Your task to perform on an android device: Clear the shopping cart on bestbuy.com. Image 0: 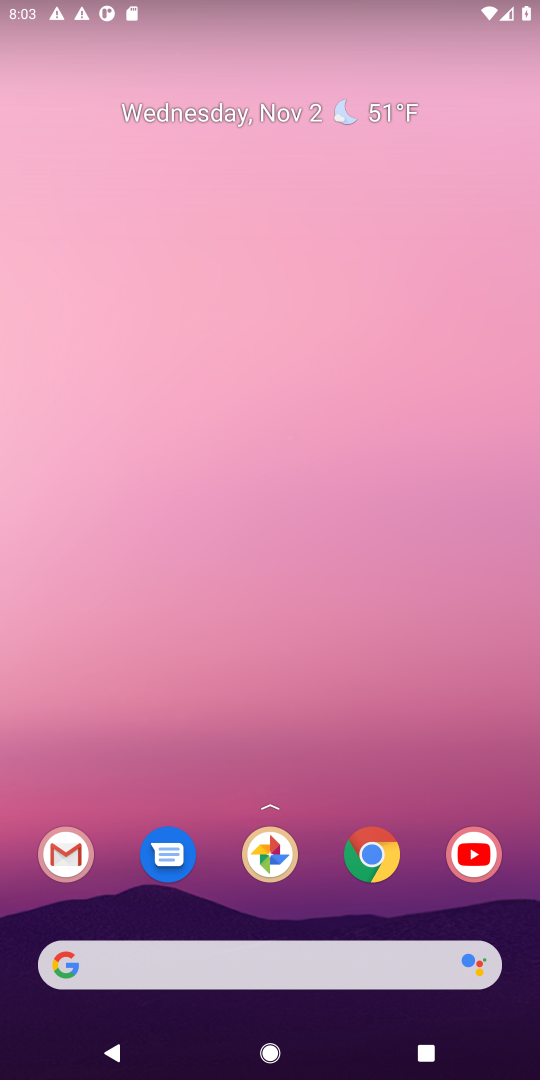
Step 0: click (379, 857)
Your task to perform on an android device: Clear the shopping cart on bestbuy.com. Image 1: 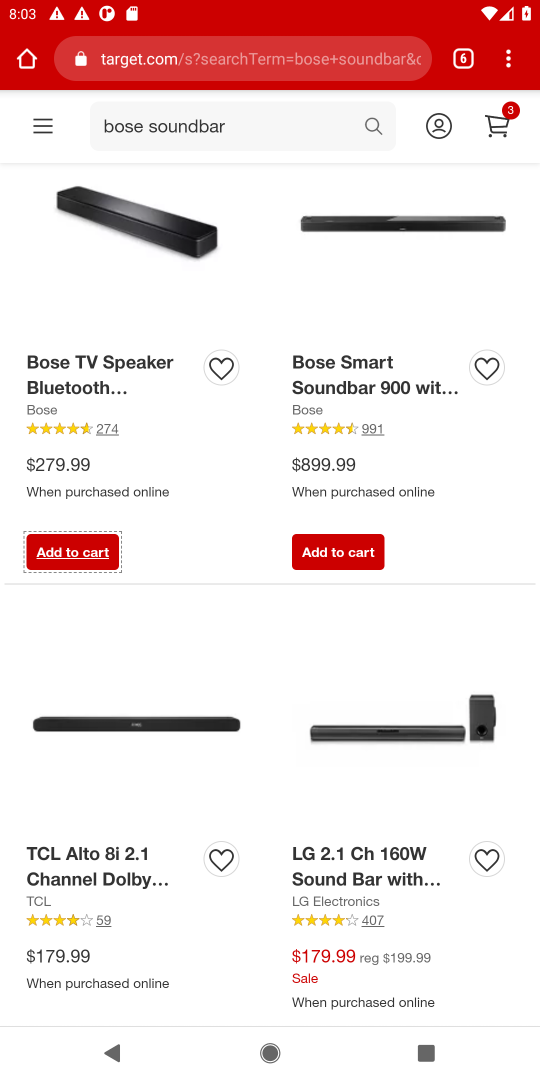
Step 1: click (461, 72)
Your task to perform on an android device: Clear the shopping cart on bestbuy.com. Image 2: 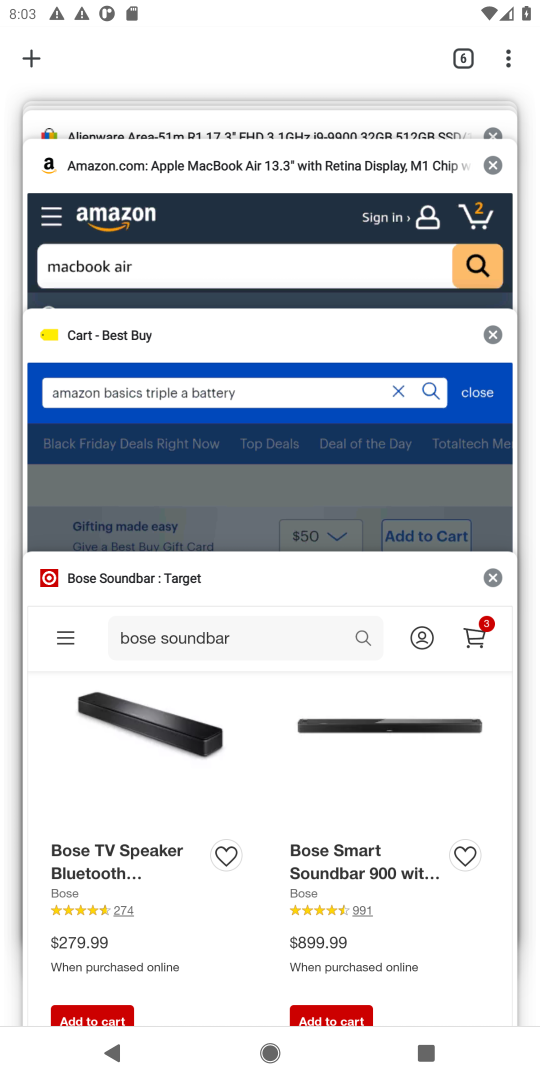
Step 2: click (225, 410)
Your task to perform on an android device: Clear the shopping cart on bestbuy.com. Image 3: 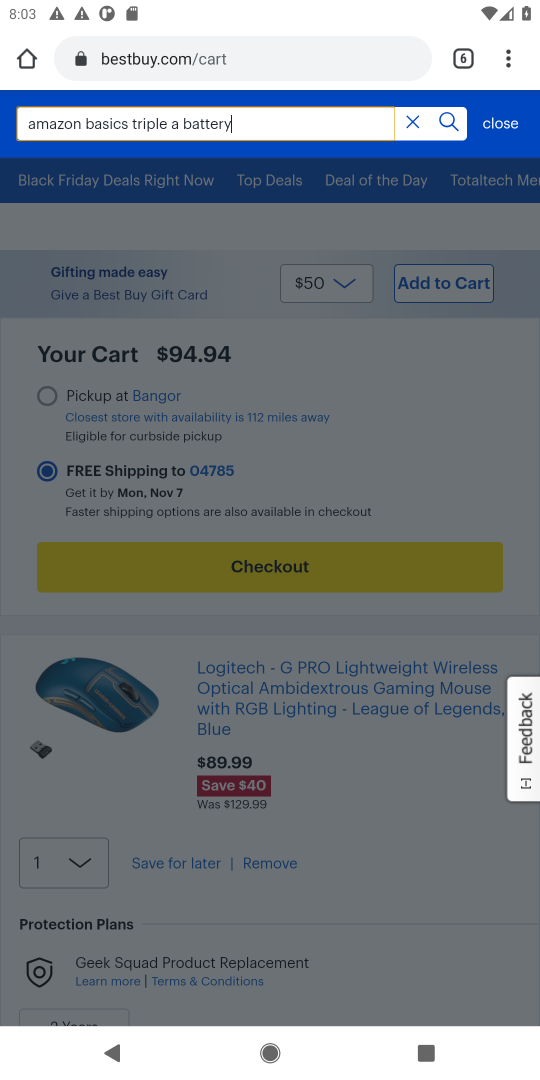
Step 3: click (497, 127)
Your task to perform on an android device: Clear the shopping cart on bestbuy.com. Image 4: 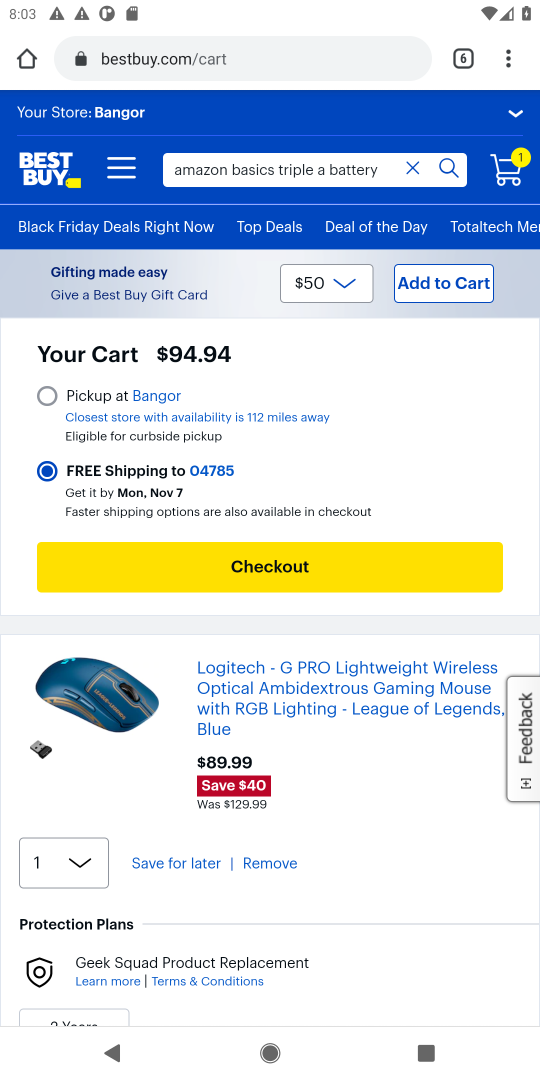
Step 4: click (511, 158)
Your task to perform on an android device: Clear the shopping cart on bestbuy.com. Image 5: 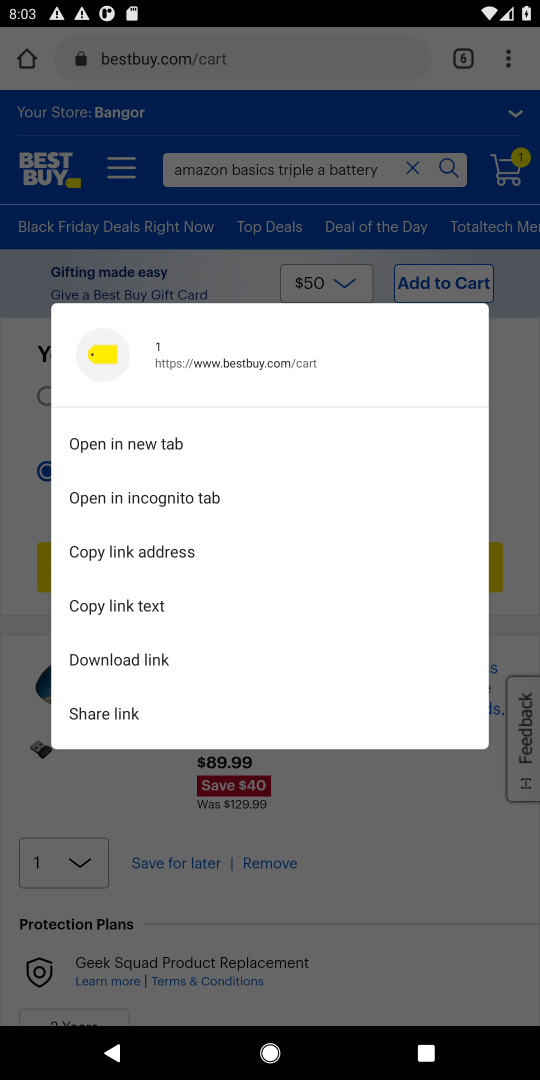
Step 5: click (338, 835)
Your task to perform on an android device: Clear the shopping cart on bestbuy.com. Image 6: 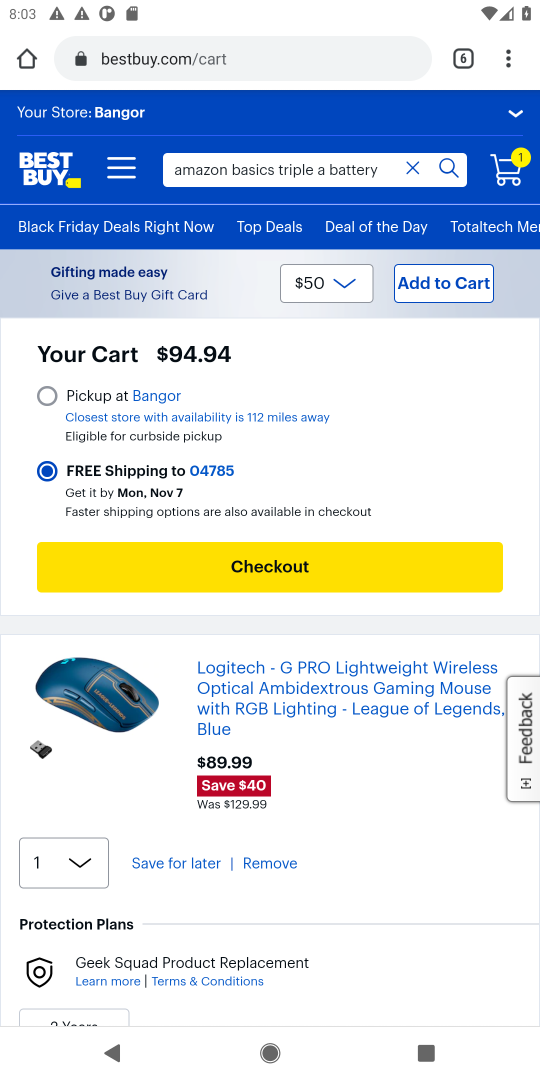
Step 6: click (508, 180)
Your task to perform on an android device: Clear the shopping cart on bestbuy.com. Image 7: 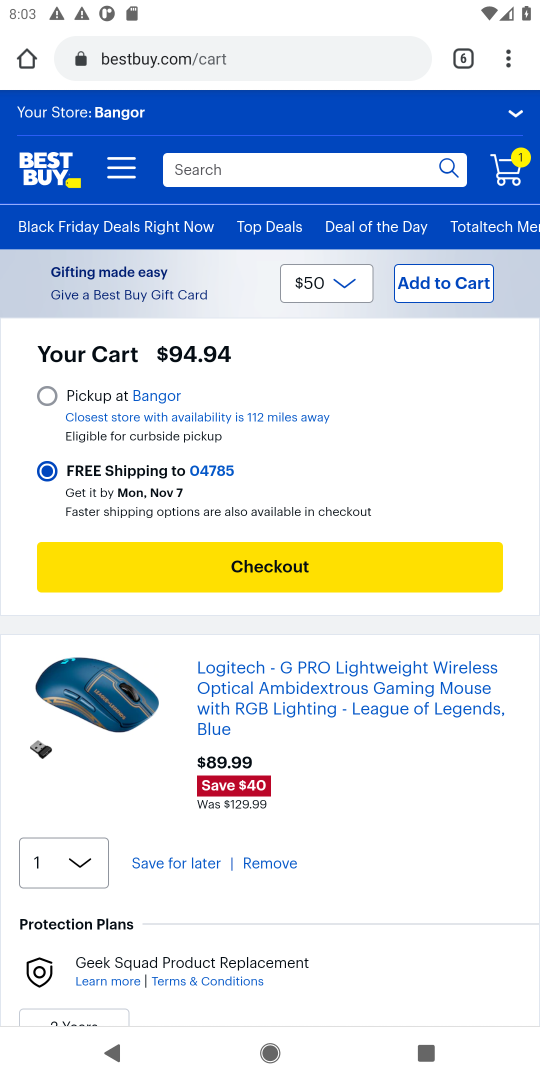
Step 7: click (268, 863)
Your task to perform on an android device: Clear the shopping cart on bestbuy.com. Image 8: 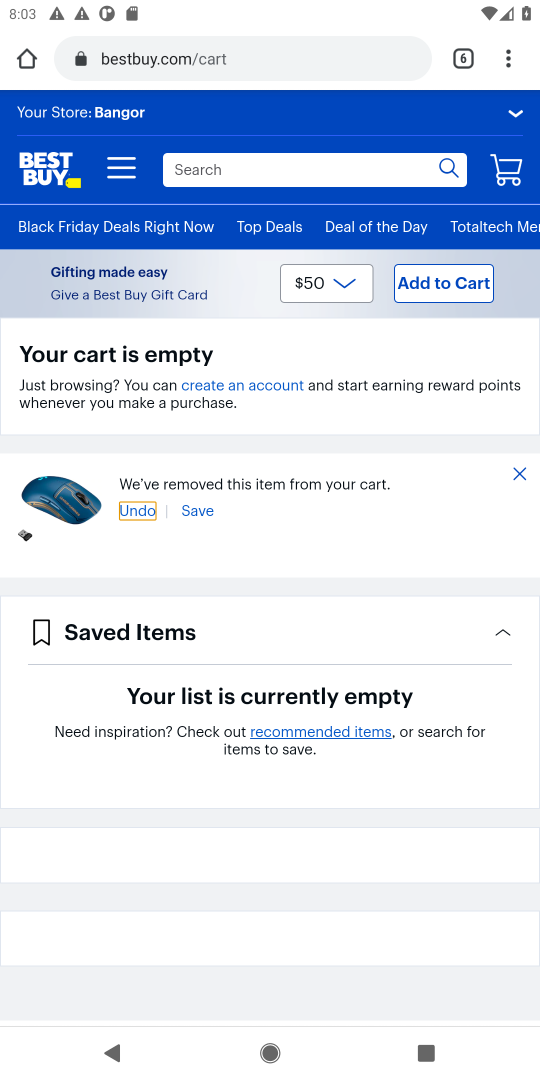
Step 8: task complete